Your task to perform on an android device: delete browsing data in the chrome app Image 0: 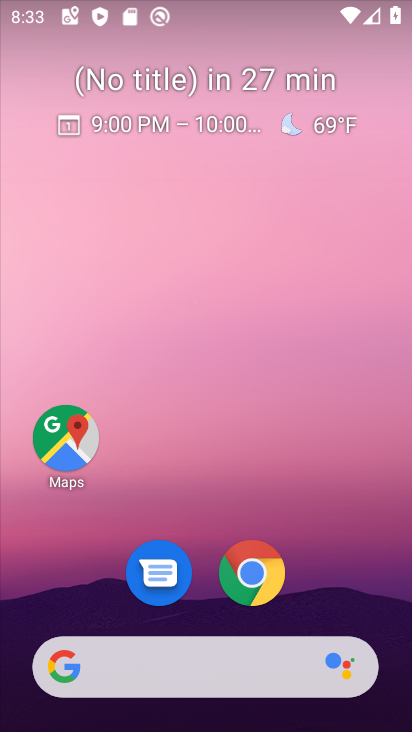
Step 0: click (270, 555)
Your task to perform on an android device: delete browsing data in the chrome app Image 1: 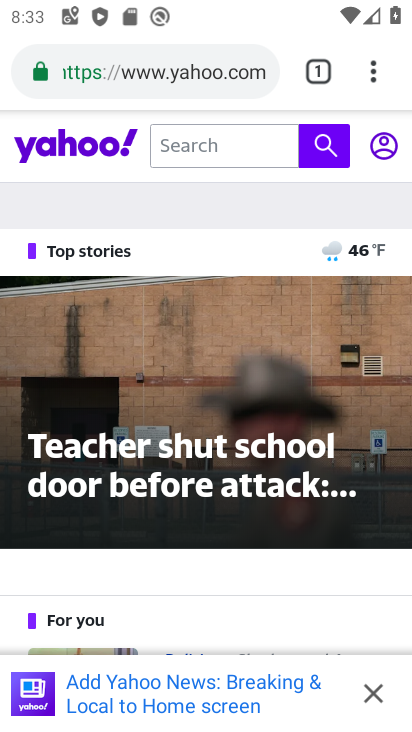
Step 1: click (377, 63)
Your task to perform on an android device: delete browsing data in the chrome app Image 2: 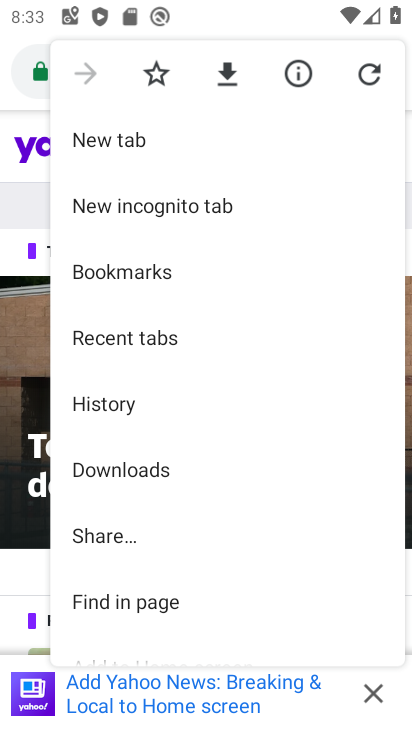
Step 2: click (112, 422)
Your task to perform on an android device: delete browsing data in the chrome app Image 3: 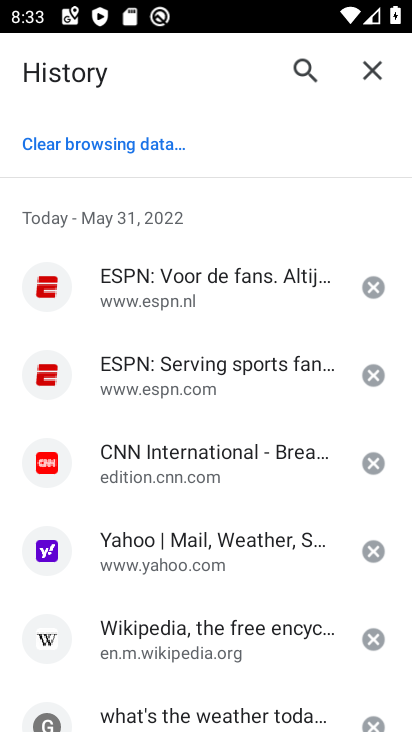
Step 3: drag from (190, 469) to (231, 171)
Your task to perform on an android device: delete browsing data in the chrome app Image 4: 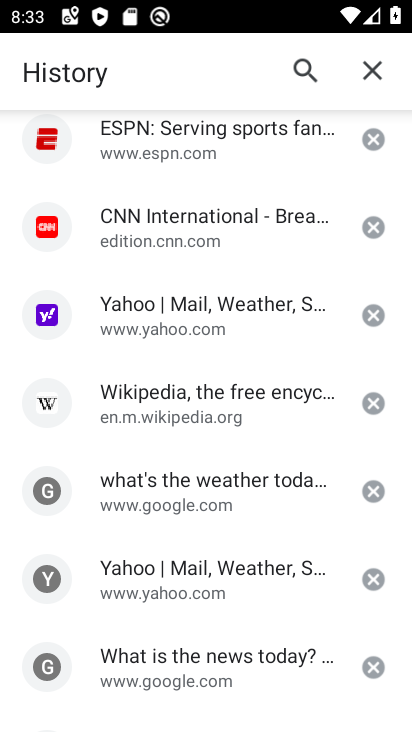
Step 4: drag from (162, 192) to (137, 634)
Your task to perform on an android device: delete browsing data in the chrome app Image 5: 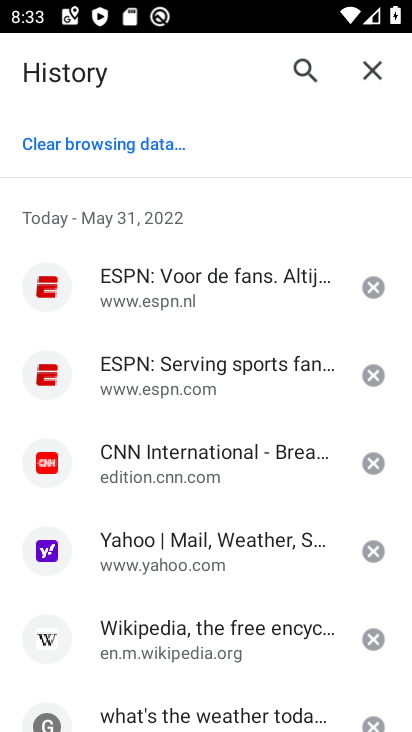
Step 5: click (128, 140)
Your task to perform on an android device: delete browsing data in the chrome app Image 6: 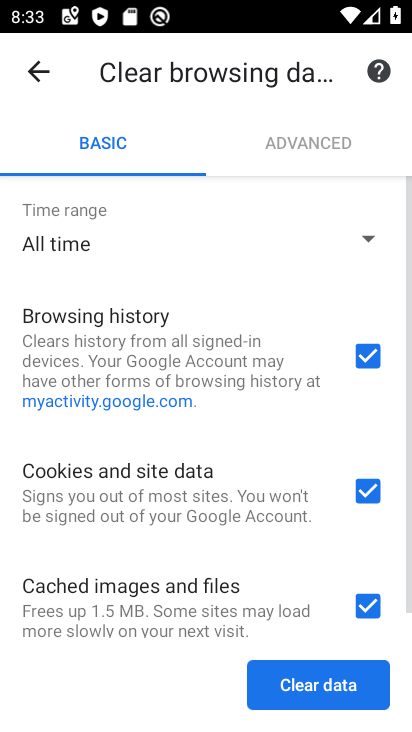
Step 6: click (327, 685)
Your task to perform on an android device: delete browsing data in the chrome app Image 7: 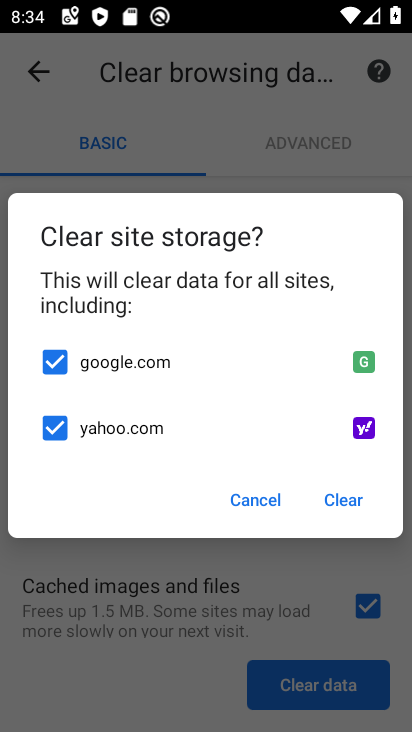
Step 7: click (344, 489)
Your task to perform on an android device: delete browsing data in the chrome app Image 8: 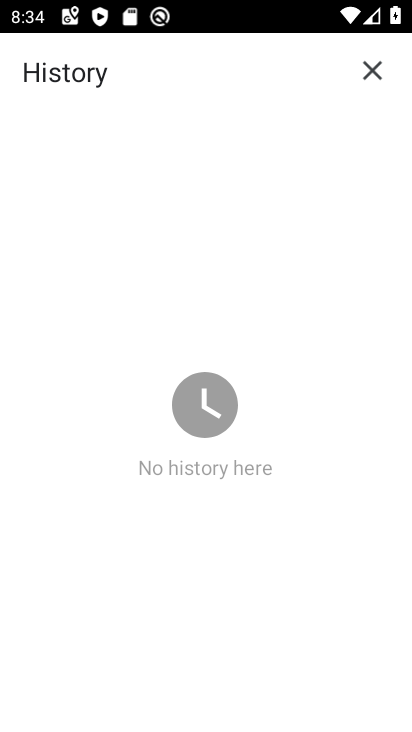
Step 8: task complete